Your task to perform on an android device: Open Google Maps Image 0: 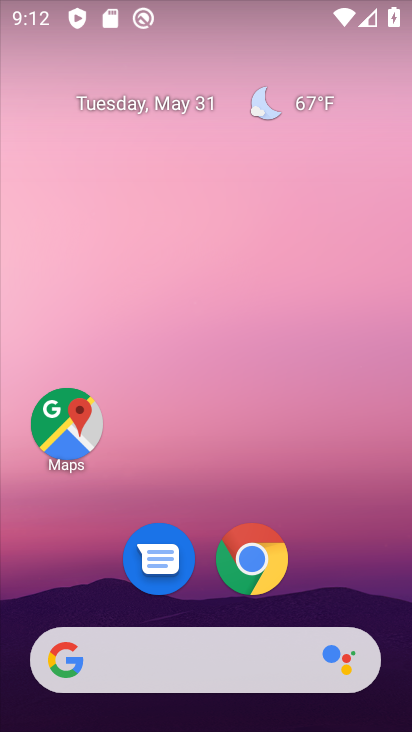
Step 0: drag from (207, 601) to (228, 41)
Your task to perform on an android device: Open Google Maps Image 1: 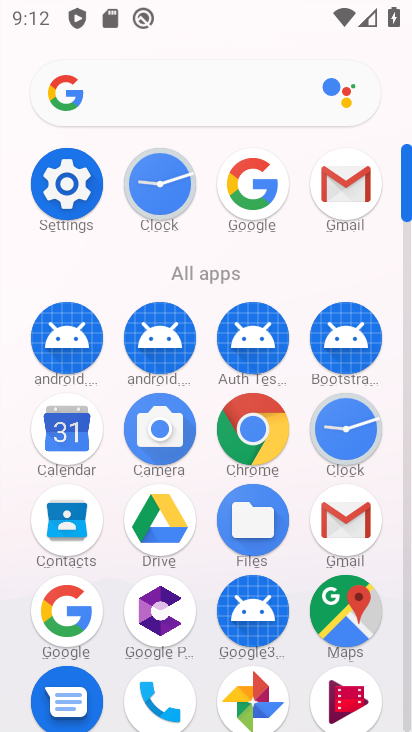
Step 1: click (346, 607)
Your task to perform on an android device: Open Google Maps Image 2: 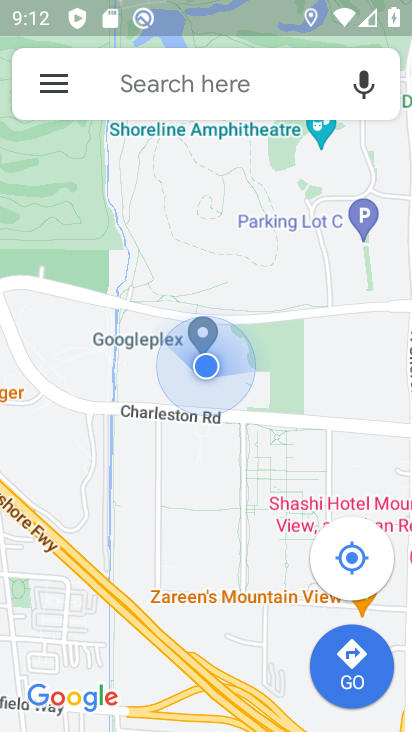
Step 2: task complete